Your task to perform on an android device: Is it going to rain today? Image 0: 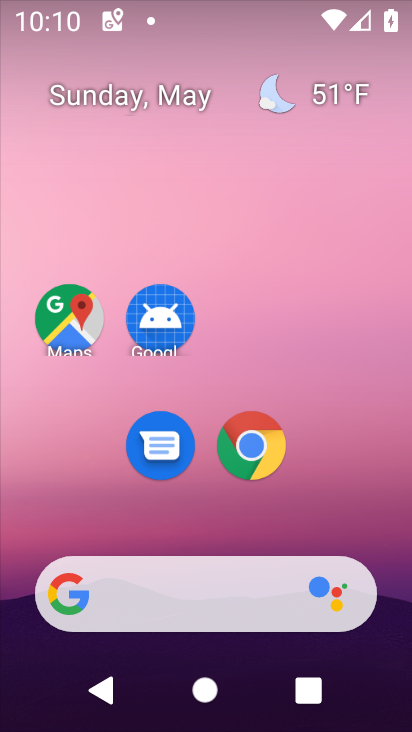
Step 0: click (272, 99)
Your task to perform on an android device: Is it going to rain today? Image 1: 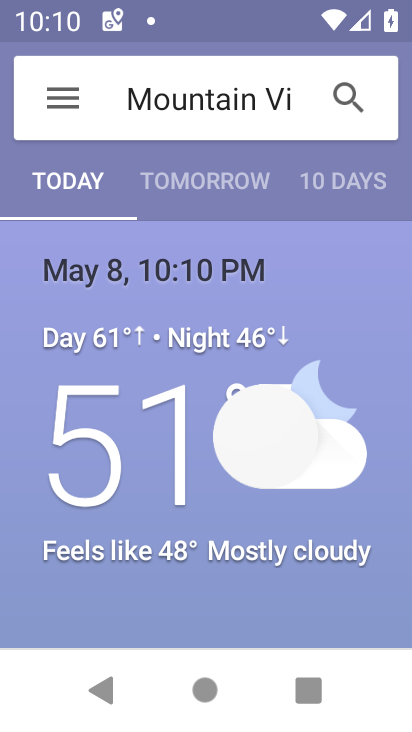
Step 1: task complete